Your task to perform on an android device: turn off sleep mode Image 0: 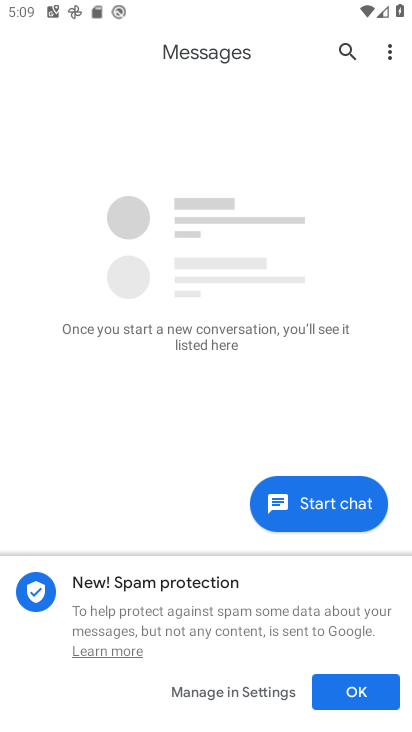
Step 0: press home button
Your task to perform on an android device: turn off sleep mode Image 1: 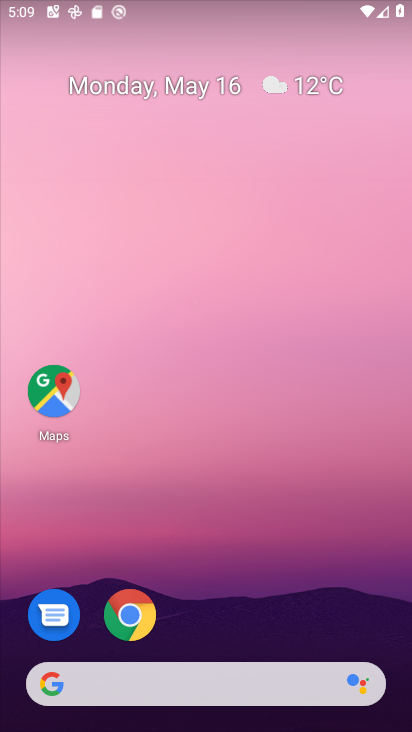
Step 1: drag from (186, 623) to (223, 1)
Your task to perform on an android device: turn off sleep mode Image 2: 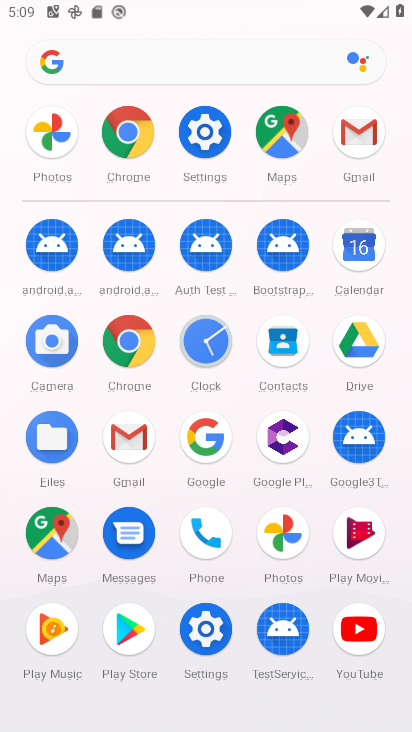
Step 2: click (202, 144)
Your task to perform on an android device: turn off sleep mode Image 3: 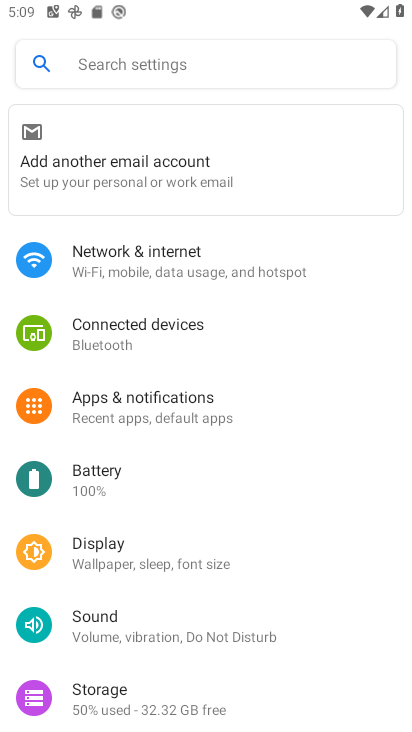
Step 3: task complete